Your task to perform on an android device: check storage Image 0: 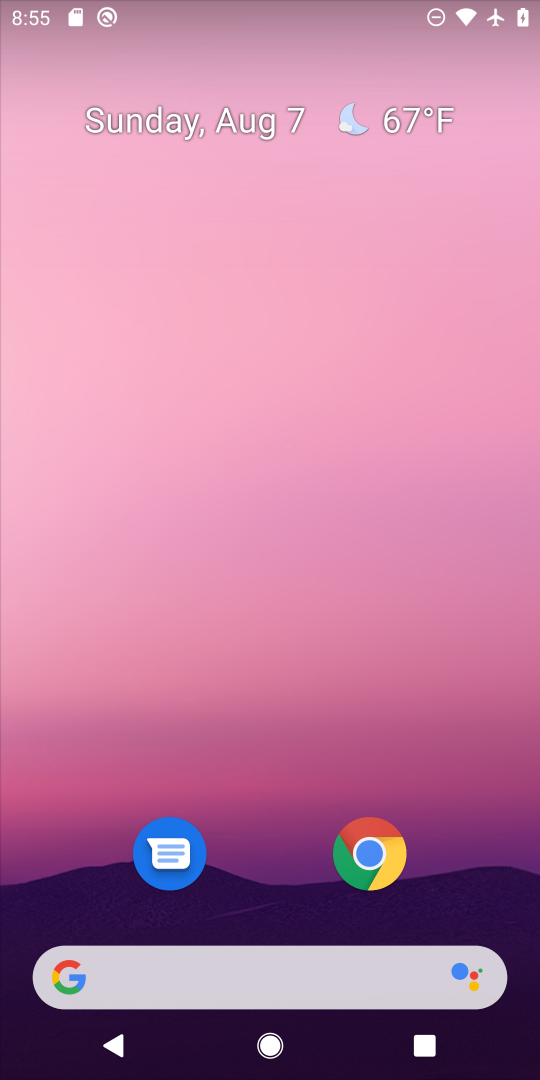
Step 0: drag from (310, 948) to (440, 27)
Your task to perform on an android device: check storage Image 1: 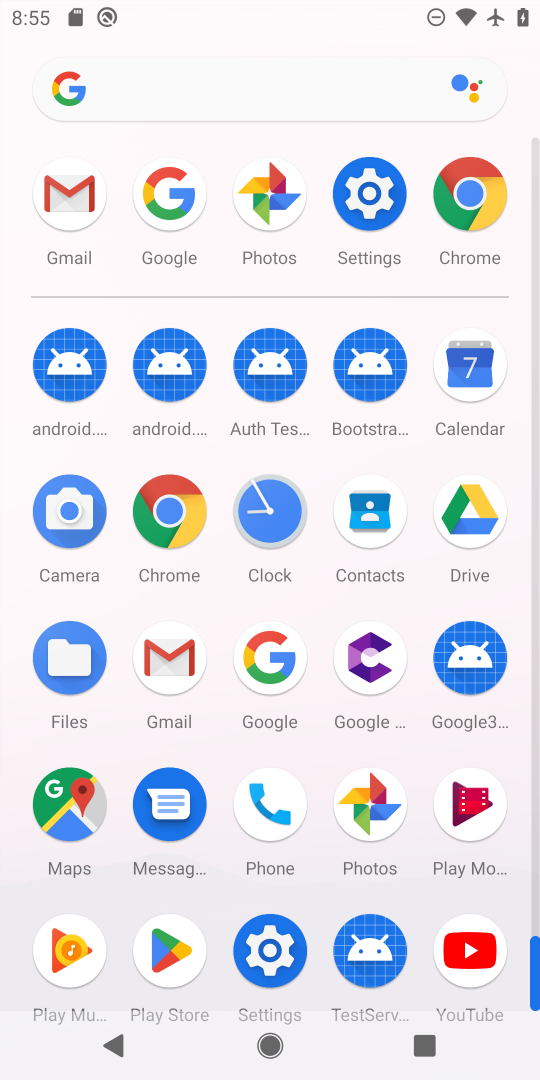
Step 1: click (371, 221)
Your task to perform on an android device: check storage Image 2: 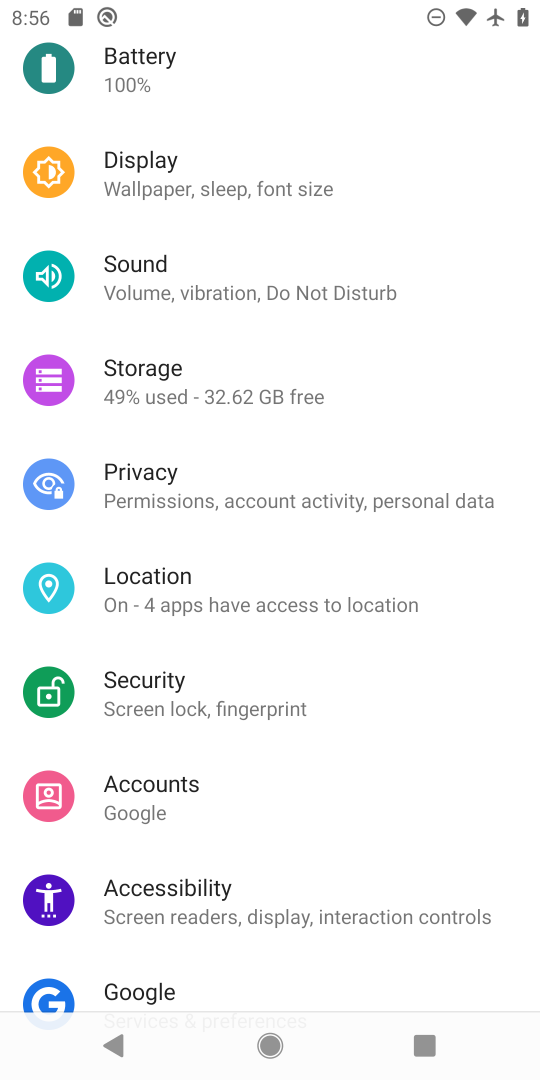
Step 2: click (217, 387)
Your task to perform on an android device: check storage Image 3: 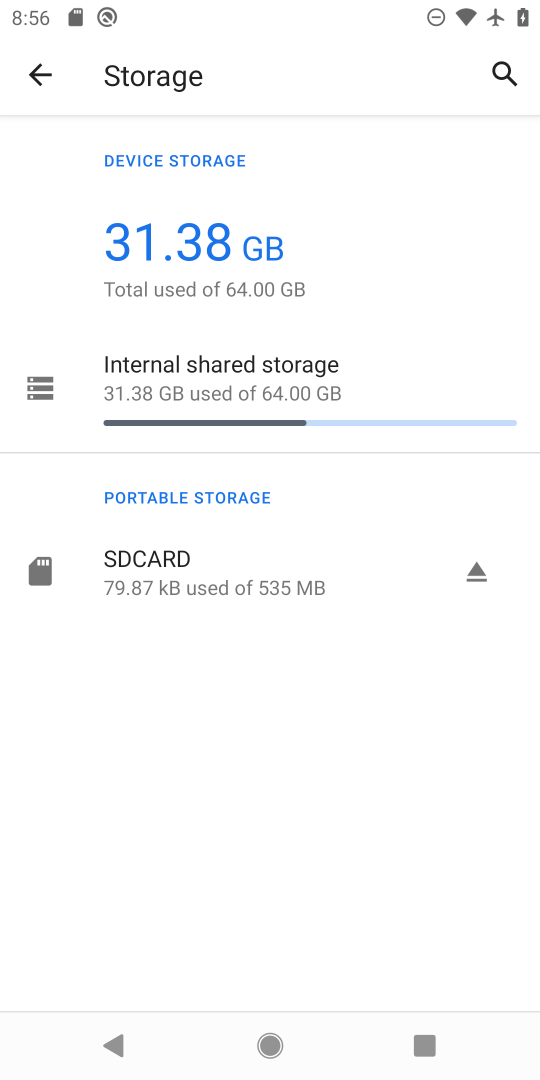
Step 3: click (215, 427)
Your task to perform on an android device: check storage Image 4: 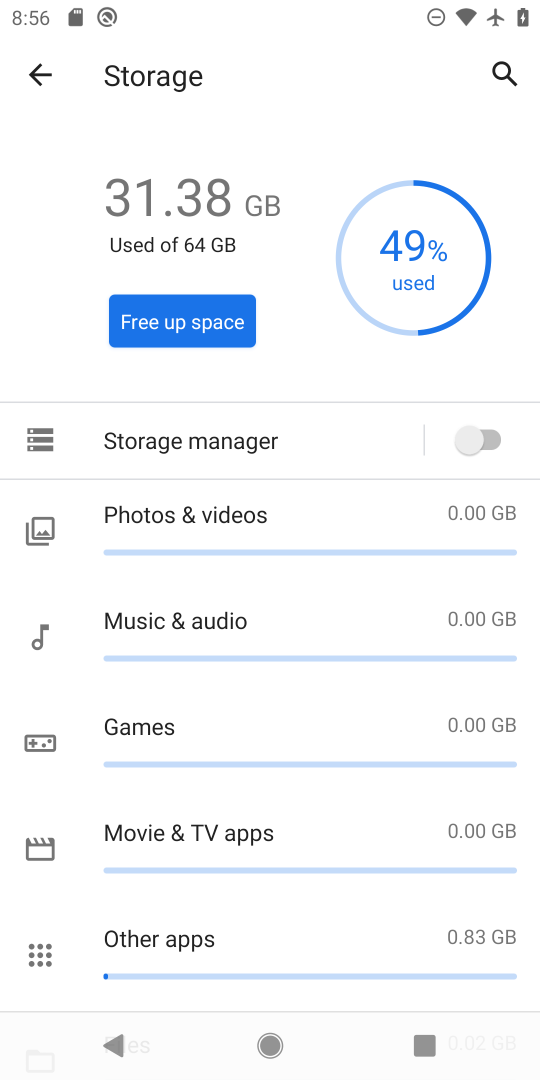
Step 4: task complete